Your task to perform on an android device: Open the Play Movies app and select the watchlist tab. Image 0: 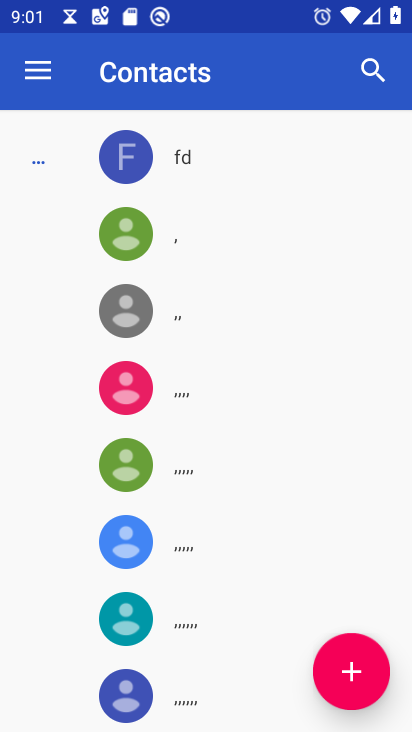
Step 0: press home button
Your task to perform on an android device: Open the Play Movies app and select the watchlist tab. Image 1: 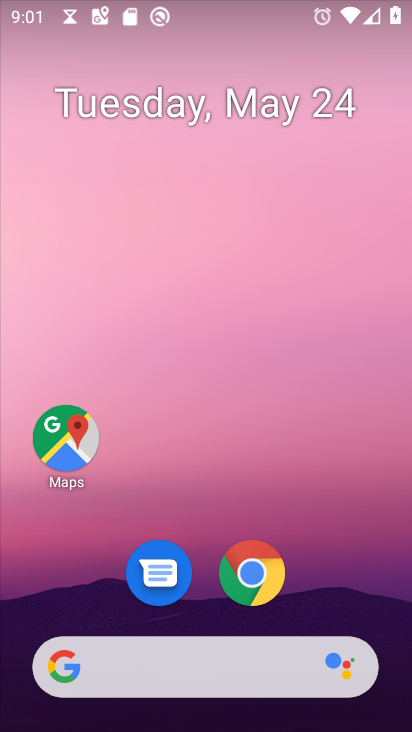
Step 1: drag from (354, 532) to (339, 12)
Your task to perform on an android device: Open the Play Movies app and select the watchlist tab. Image 2: 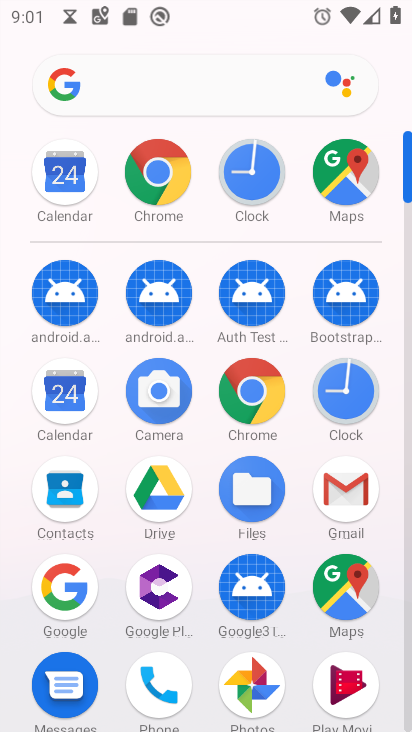
Step 2: click (358, 683)
Your task to perform on an android device: Open the Play Movies app and select the watchlist tab. Image 3: 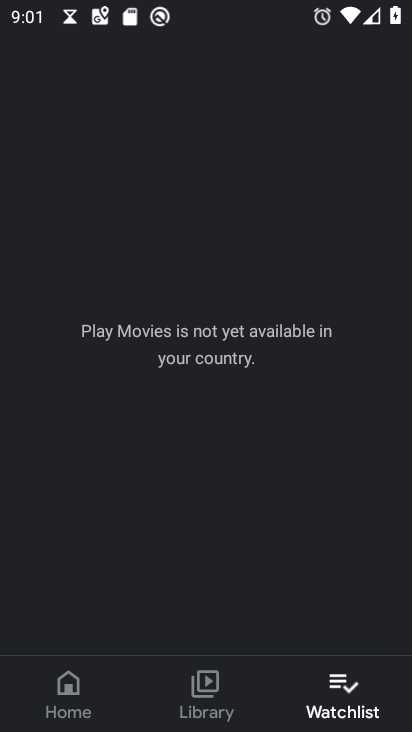
Step 3: task complete